Your task to perform on an android device: Open settings on Google Maps Image 0: 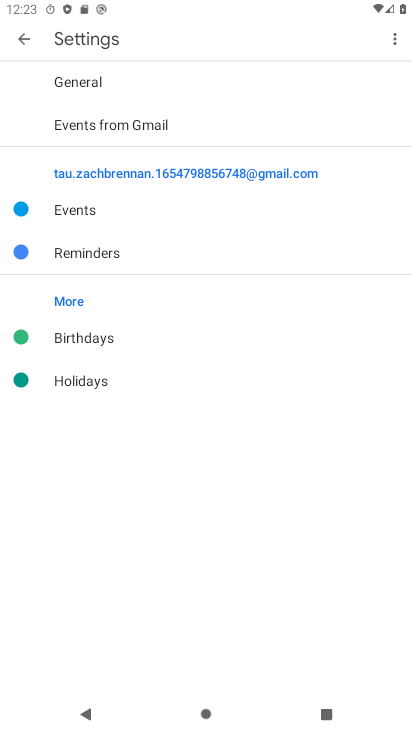
Step 0: press home button
Your task to perform on an android device: Open settings on Google Maps Image 1: 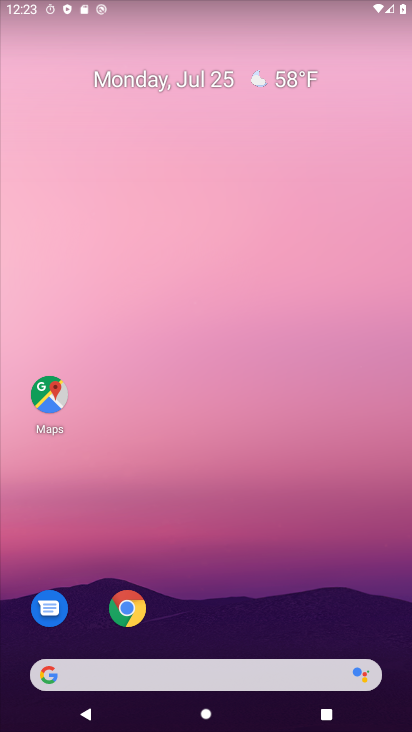
Step 1: click (49, 400)
Your task to perform on an android device: Open settings on Google Maps Image 2: 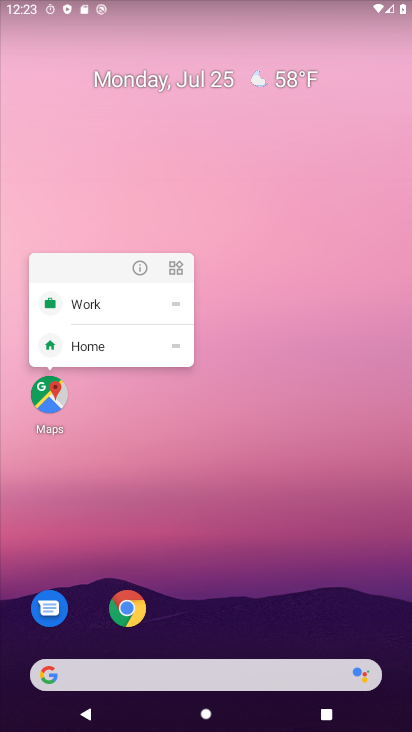
Step 2: click (51, 394)
Your task to perform on an android device: Open settings on Google Maps Image 3: 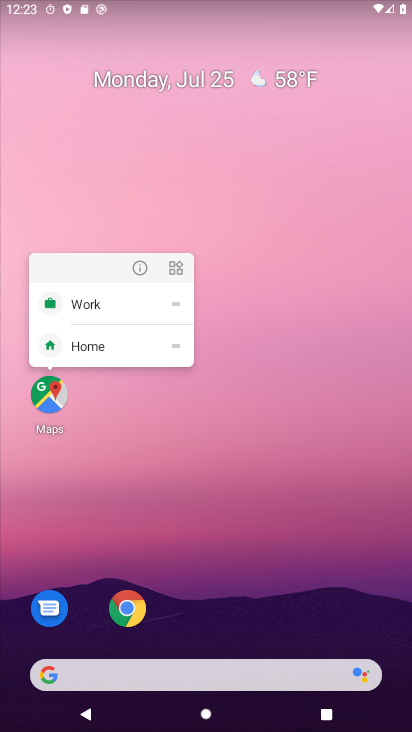
Step 3: click (50, 394)
Your task to perform on an android device: Open settings on Google Maps Image 4: 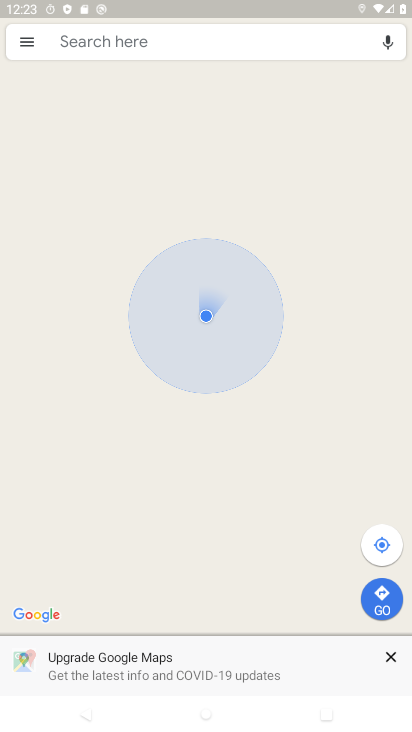
Step 4: click (29, 36)
Your task to perform on an android device: Open settings on Google Maps Image 5: 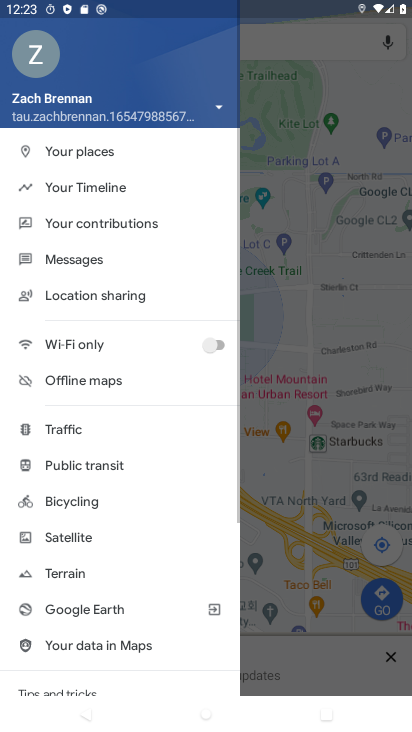
Step 5: drag from (92, 638) to (148, 272)
Your task to perform on an android device: Open settings on Google Maps Image 6: 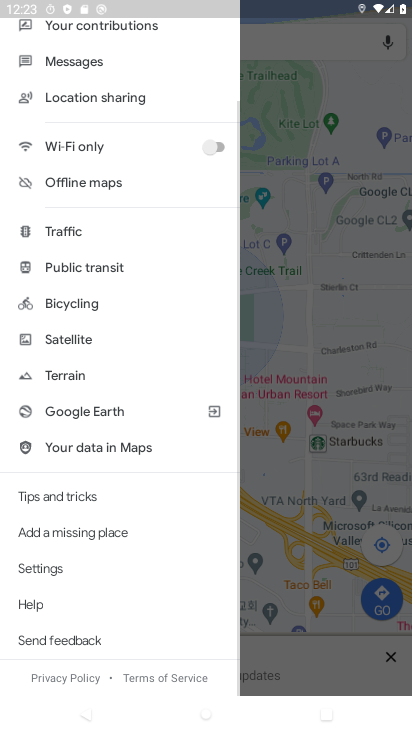
Step 6: click (55, 567)
Your task to perform on an android device: Open settings on Google Maps Image 7: 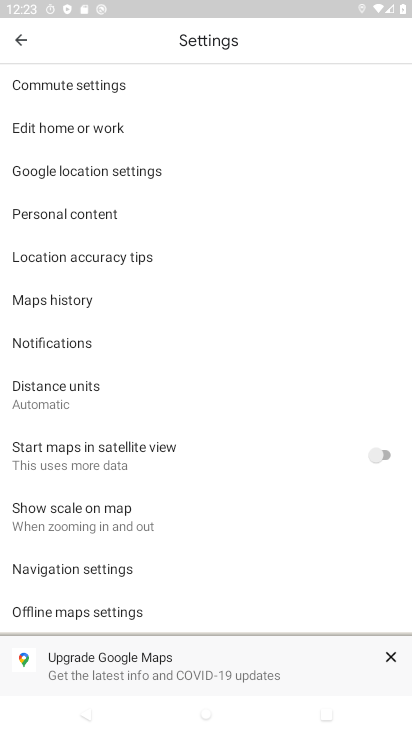
Step 7: task complete